Your task to perform on an android device: Open the calendar and show me this week's events? Image 0: 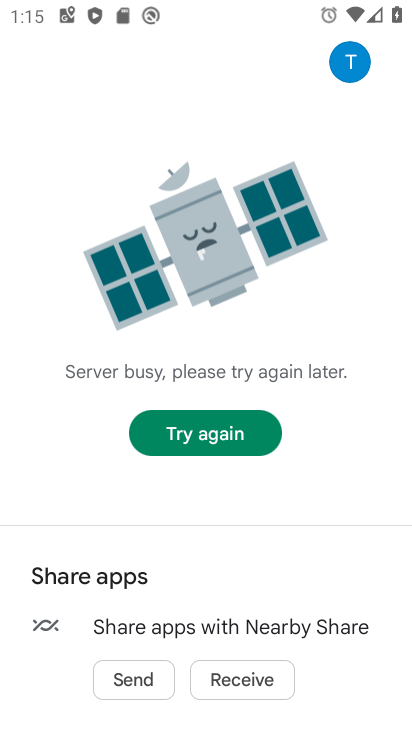
Step 0: press home button
Your task to perform on an android device: Open the calendar and show me this week's events? Image 1: 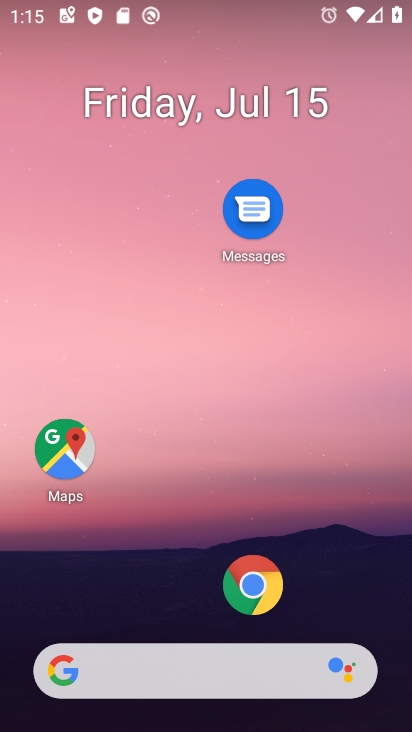
Step 1: drag from (154, 698) to (301, 162)
Your task to perform on an android device: Open the calendar and show me this week's events? Image 2: 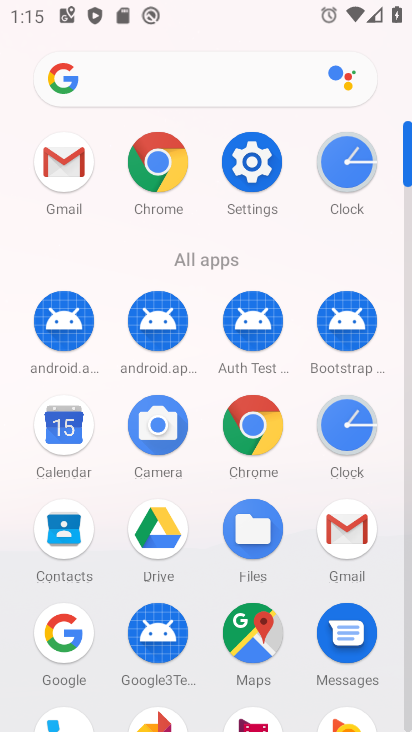
Step 2: click (68, 423)
Your task to perform on an android device: Open the calendar and show me this week's events? Image 3: 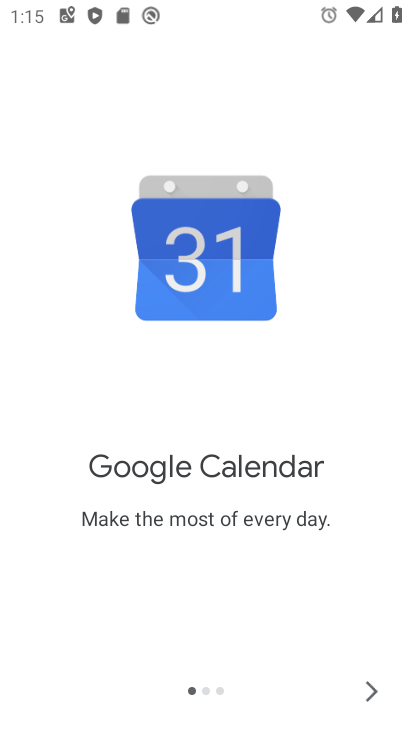
Step 3: click (366, 694)
Your task to perform on an android device: Open the calendar and show me this week's events? Image 4: 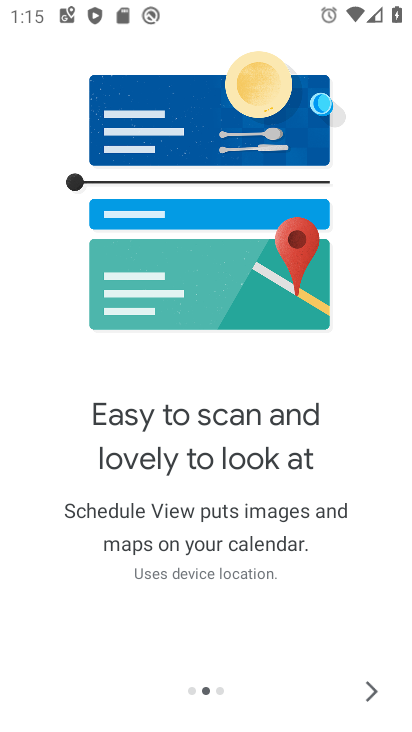
Step 4: click (366, 694)
Your task to perform on an android device: Open the calendar and show me this week's events? Image 5: 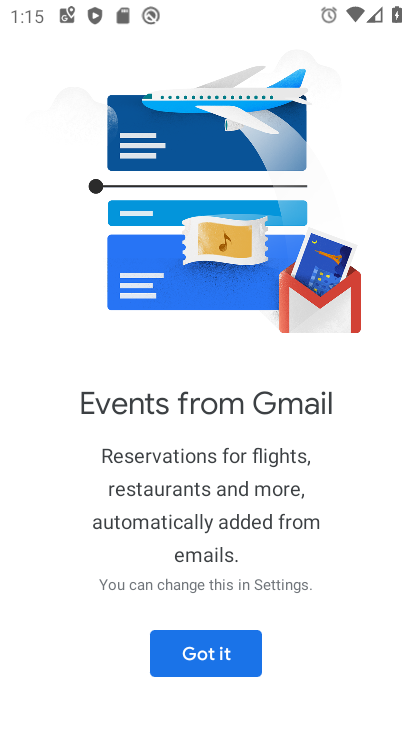
Step 5: click (223, 653)
Your task to perform on an android device: Open the calendar and show me this week's events? Image 6: 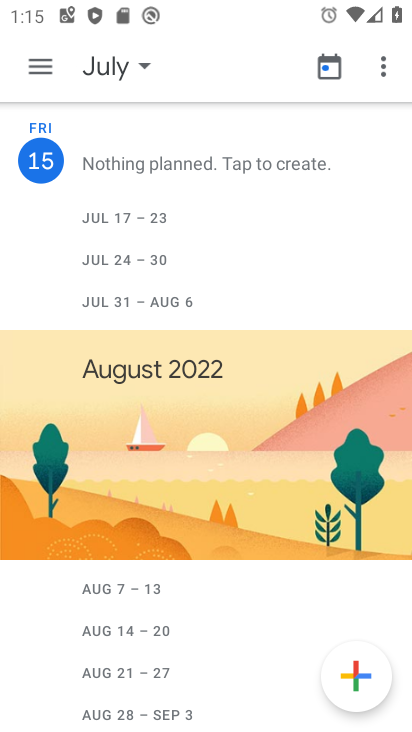
Step 6: click (115, 72)
Your task to perform on an android device: Open the calendar and show me this week's events? Image 7: 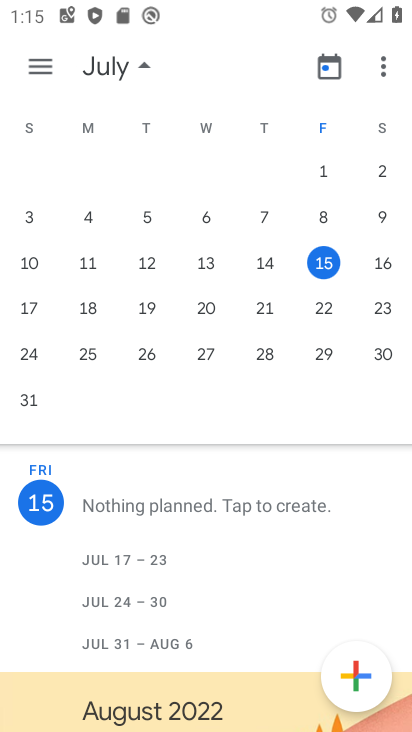
Step 7: click (326, 269)
Your task to perform on an android device: Open the calendar and show me this week's events? Image 8: 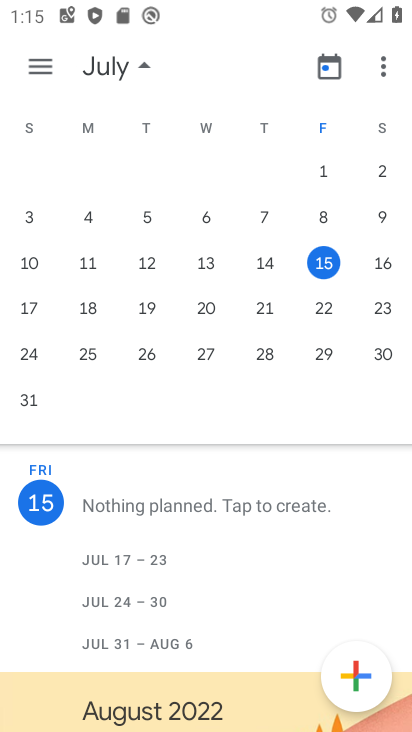
Step 8: click (31, 57)
Your task to perform on an android device: Open the calendar and show me this week's events? Image 9: 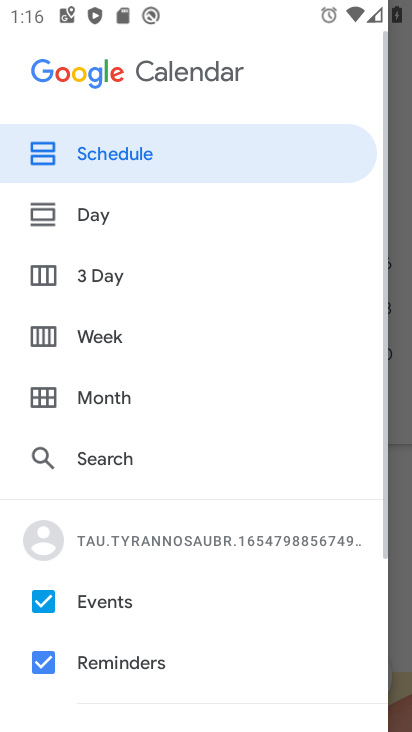
Step 9: click (114, 340)
Your task to perform on an android device: Open the calendar and show me this week's events? Image 10: 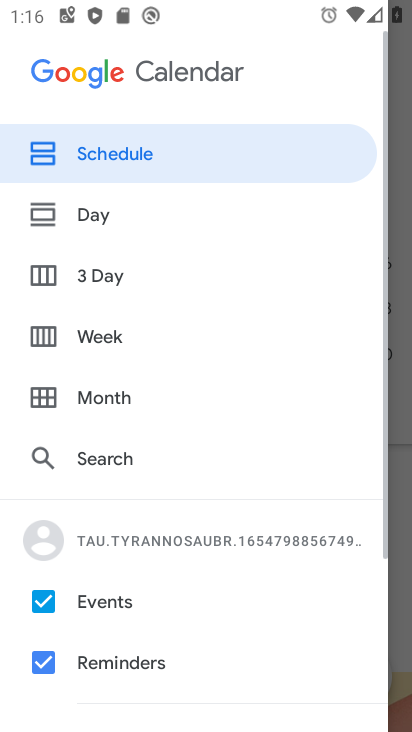
Step 10: click (98, 337)
Your task to perform on an android device: Open the calendar and show me this week's events? Image 11: 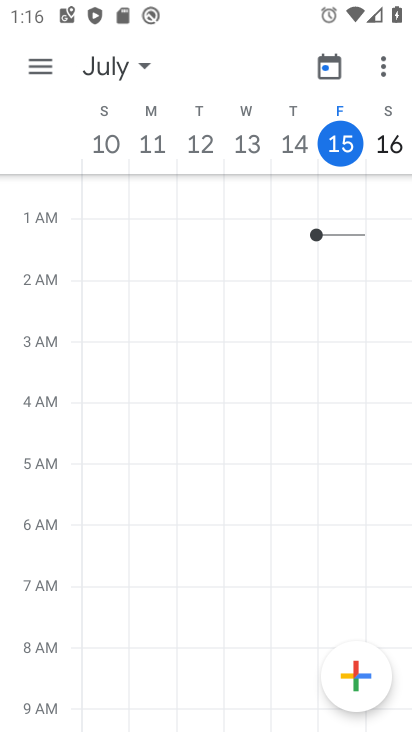
Step 11: click (39, 63)
Your task to perform on an android device: Open the calendar and show me this week's events? Image 12: 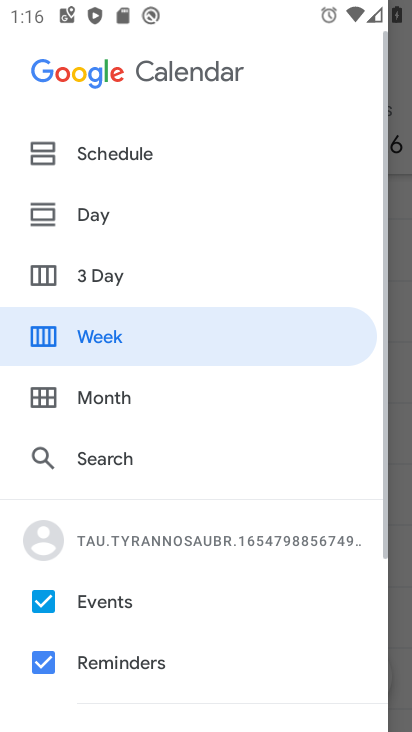
Step 12: click (102, 155)
Your task to perform on an android device: Open the calendar and show me this week's events? Image 13: 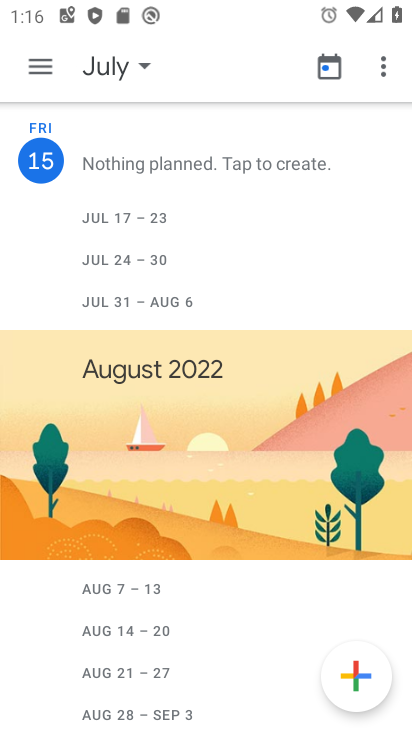
Step 13: task complete